Your task to perform on an android device: create a new album in the google photos Image 0: 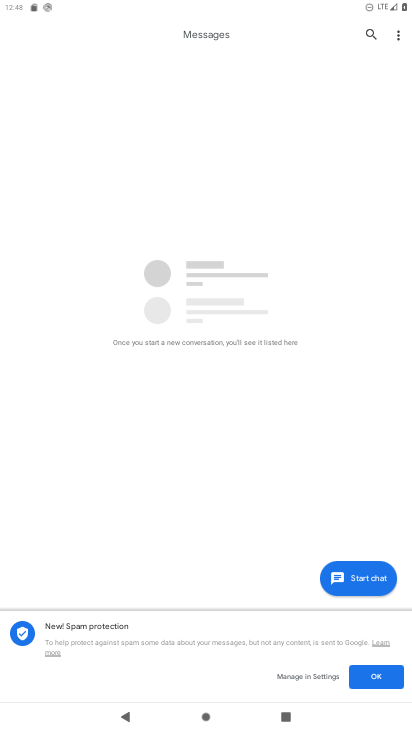
Step 0: press home button
Your task to perform on an android device: create a new album in the google photos Image 1: 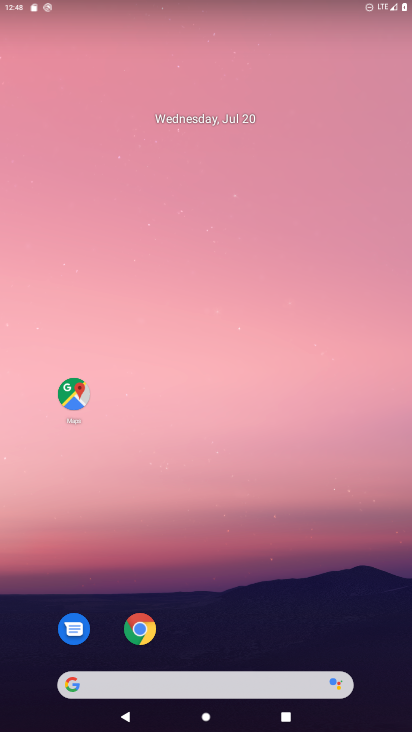
Step 1: drag from (137, 332) to (110, 149)
Your task to perform on an android device: create a new album in the google photos Image 2: 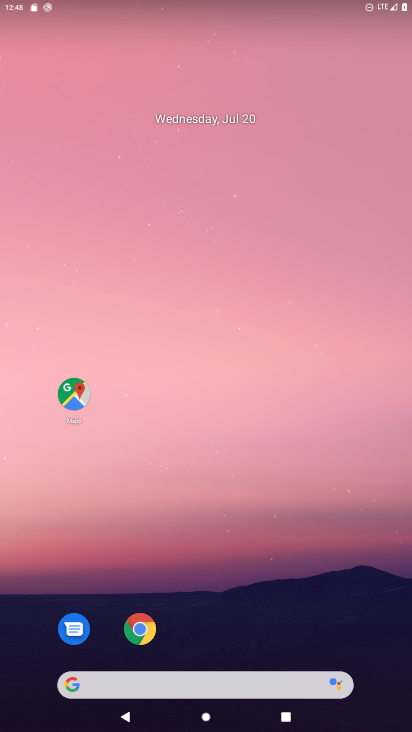
Step 2: drag from (184, 583) to (177, 88)
Your task to perform on an android device: create a new album in the google photos Image 3: 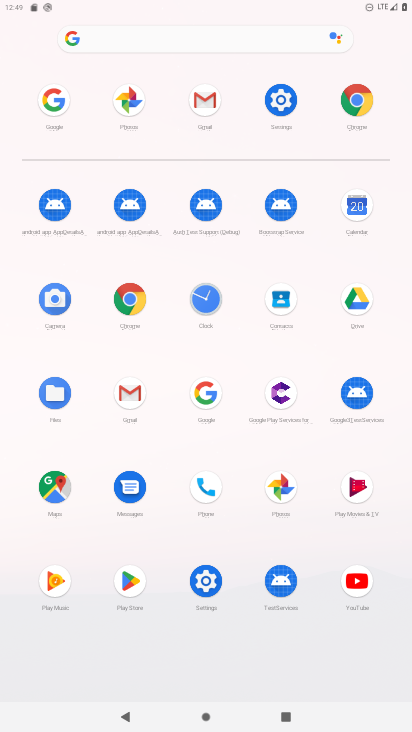
Step 3: click (273, 490)
Your task to perform on an android device: create a new album in the google photos Image 4: 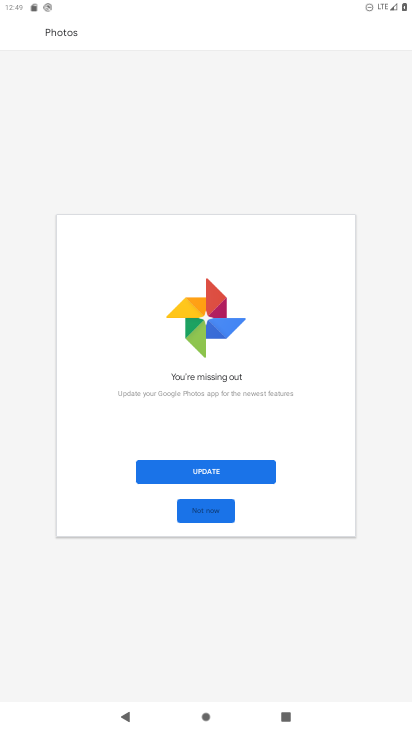
Step 4: click (195, 476)
Your task to perform on an android device: create a new album in the google photos Image 5: 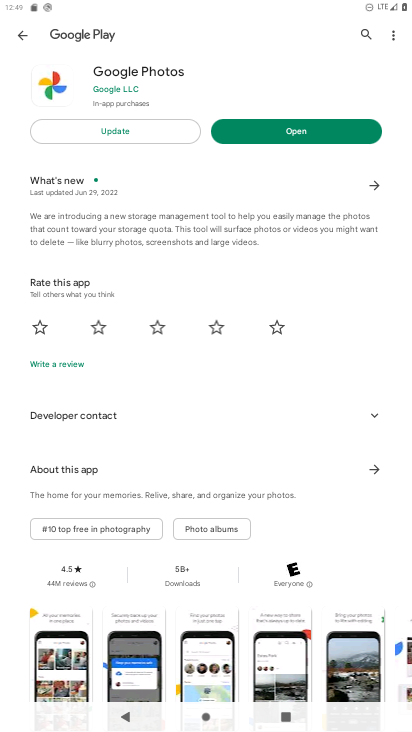
Step 5: click (105, 139)
Your task to perform on an android device: create a new album in the google photos Image 6: 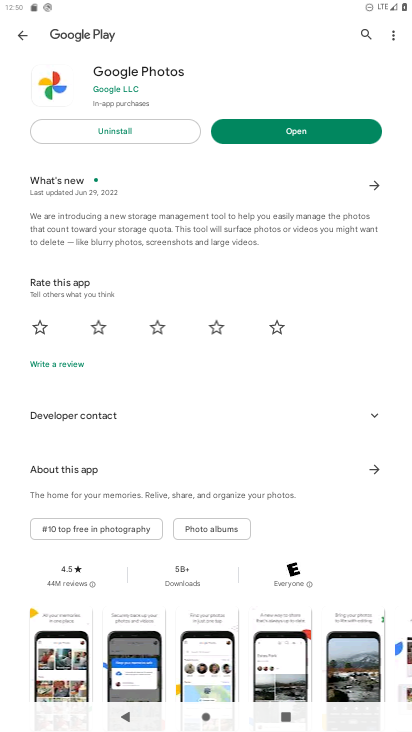
Step 6: click (259, 124)
Your task to perform on an android device: create a new album in the google photos Image 7: 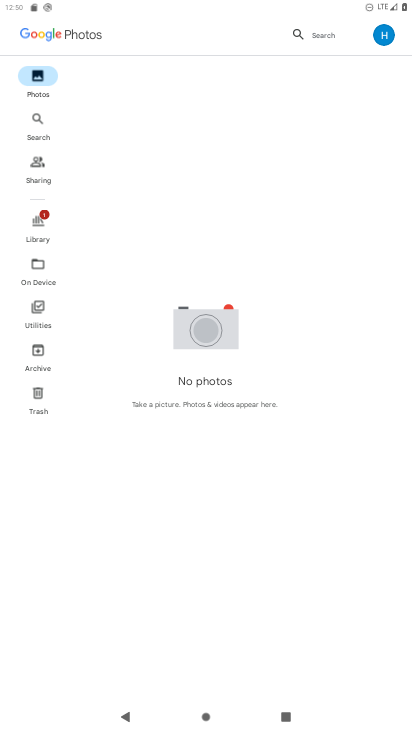
Step 7: click (30, 234)
Your task to perform on an android device: create a new album in the google photos Image 8: 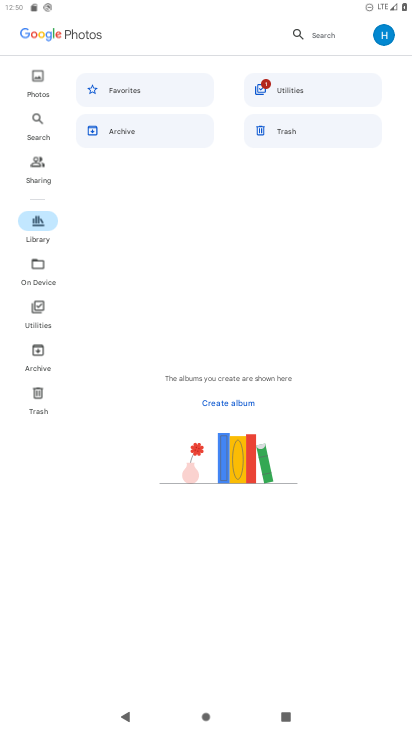
Step 8: click (238, 400)
Your task to perform on an android device: create a new album in the google photos Image 9: 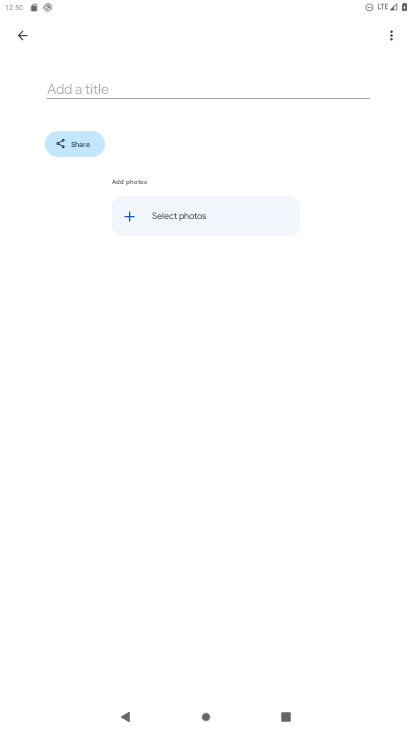
Step 9: click (181, 81)
Your task to perform on an android device: create a new album in the google photos Image 10: 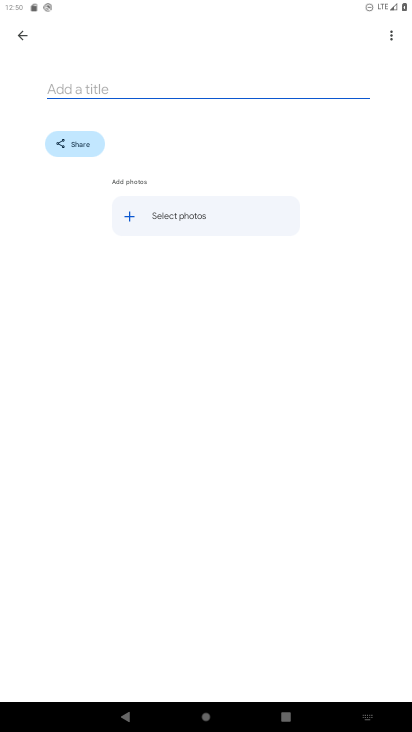
Step 10: type "Navi"
Your task to perform on an android device: create a new album in the google photos Image 11: 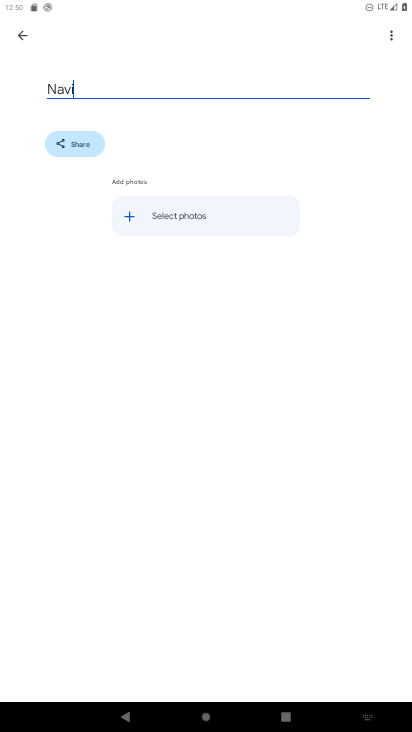
Step 11: click (162, 207)
Your task to perform on an android device: create a new album in the google photos Image 12: 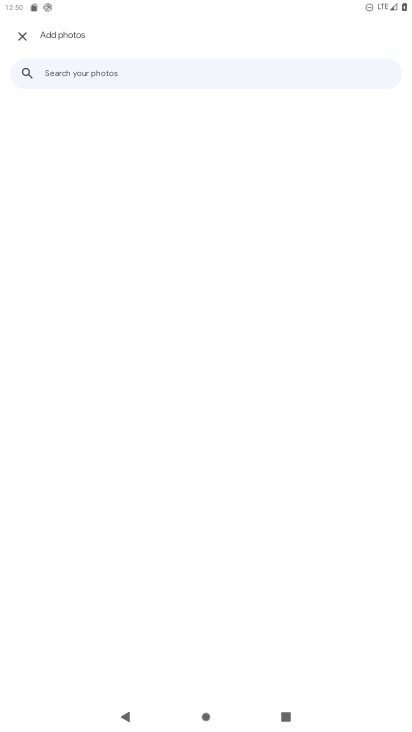
Step 12: task complete